Your task to perform on an android device: read, delete, or share a saved page in the chrome app Image 0: 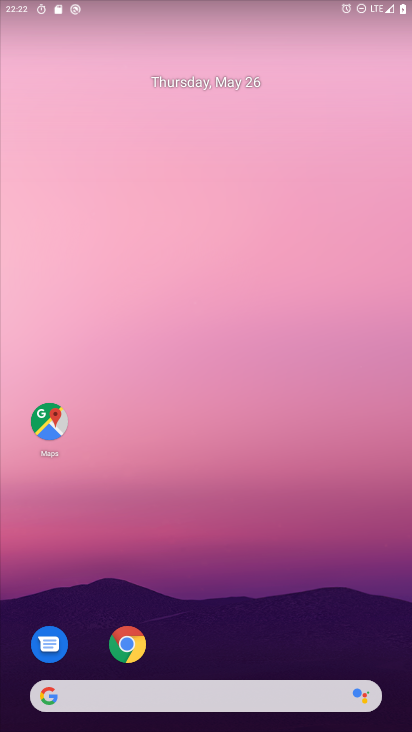
Step 0: drag from (193, 647) to (239, 147)
Your task to perform on an android device: read, delete, or share a saved page in the chrome app Image 1: 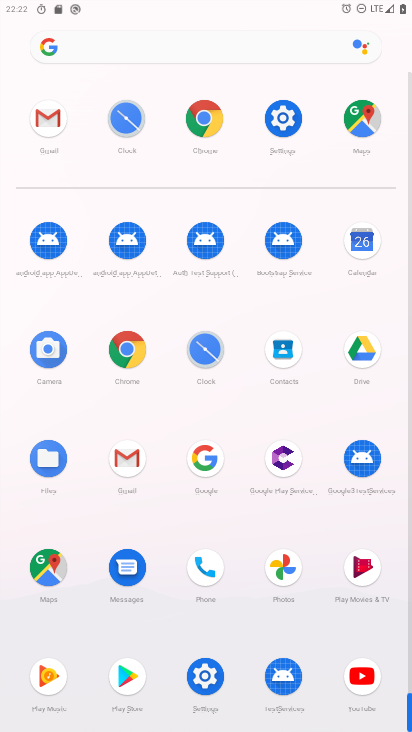
Step 1: click (116, 341)
Your task to perform on an android device: read, delete, or share a saved page in the chrome app Image 2: 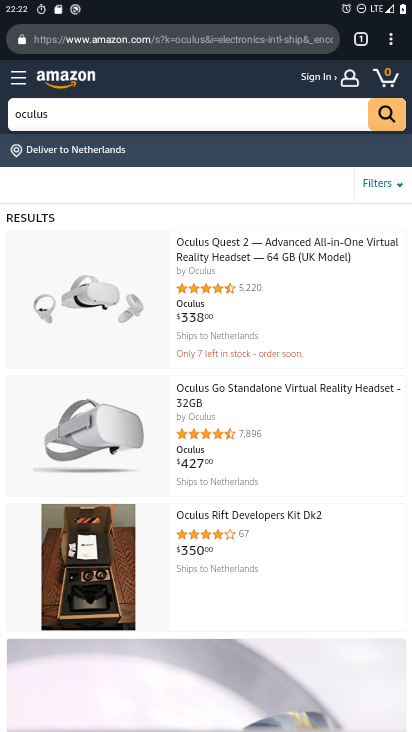
Step 2: drag from (248, 591) to (292, 374)
Your task to perform on an android device: read, delete, or share a saved page in the chrome app Image 3: 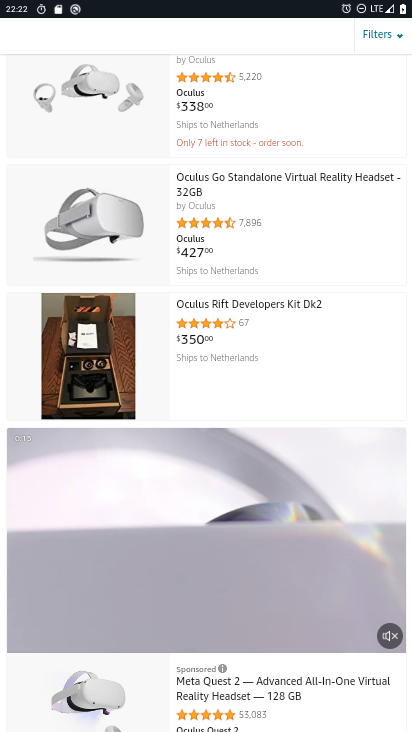
Step 3: drag from (298, 314) to (287, 728)
Your task to perform on an android device: read, delete, or share a saved page in the chrome app Image 4: 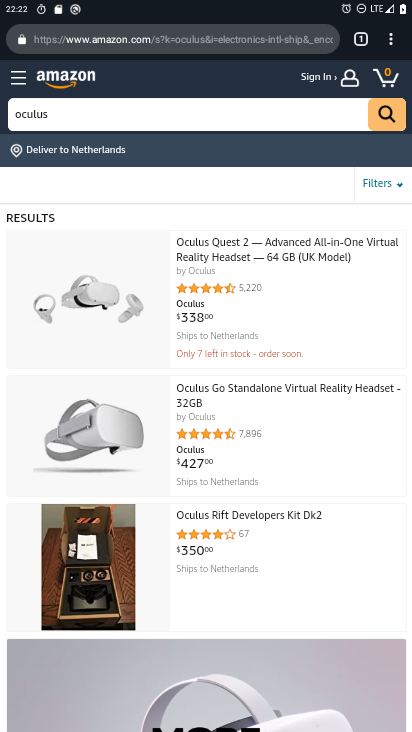
Step 4: drag from (398, 34) to (286, 188)
Your task to perform on an android device: read, delete, or share a saved page in the chrome app Image 5: 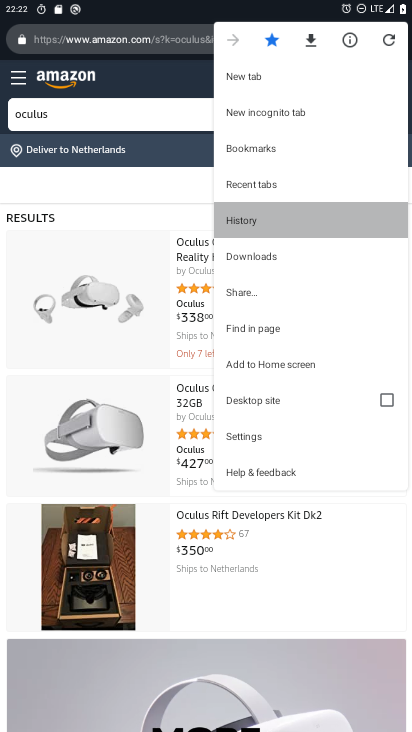
Step 5: click (286, 171)
Your task to perform on an android device: read, delete, or share a saved page in the chrome app Image 6: 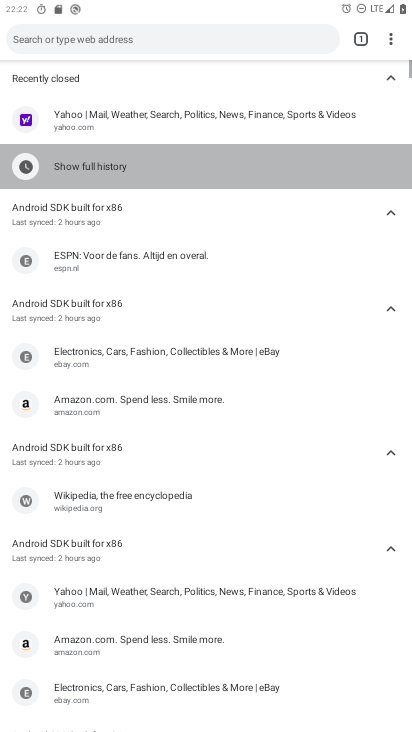
Step 6: drag from (295, 164) to (335, 133)
Your task to perform on an android device: read, delete, or share a saved page in the chrome app Image 7: 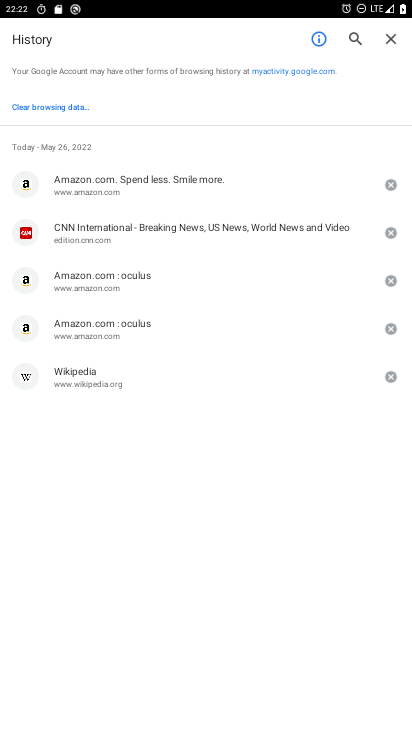
Step 7: click (386, 32)
Your task to perform on an android device: read, delete, or share a saved page in the chrome app Image 8: 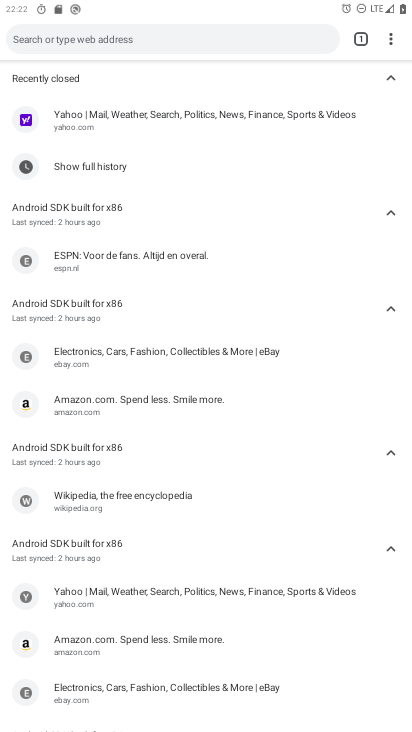
Step 8: task complete